Your task to perform on an android device: Open Youtube and go to "Your channel" Image 0: 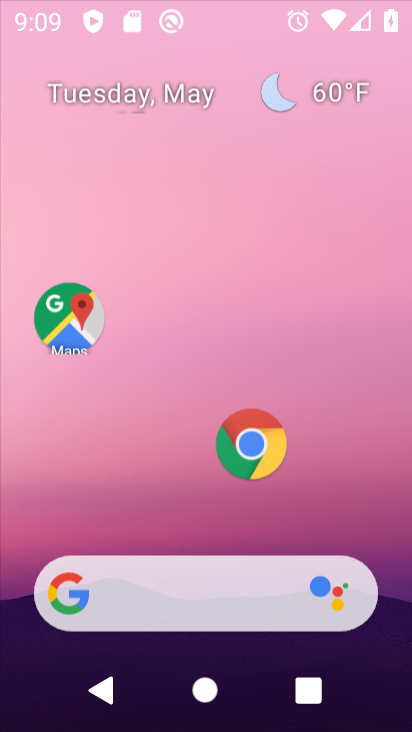
Step 0: click (247, 453)
Your task to perform on an android device: Open Youtube and go to "Your channel" Image 1: 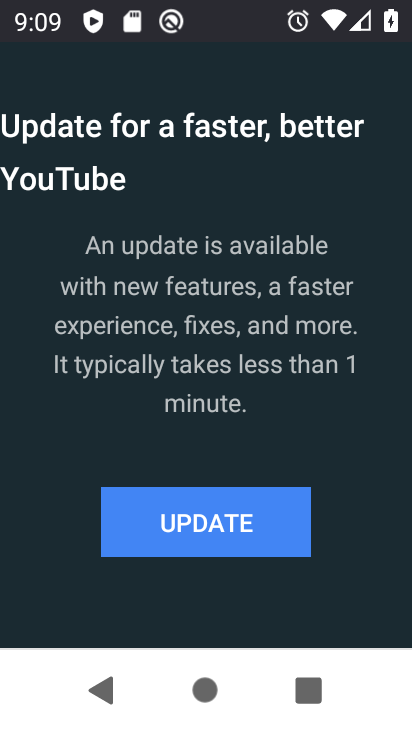
Step 1: press back button
Your task to perform on an android device: Open Youtube and go to "Your channel" Image 2: 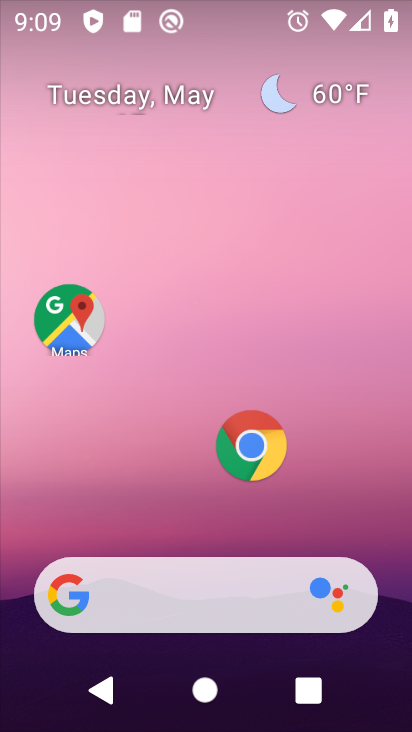
Step 2: drag from (155, 525) to (157, 182)
Your task to perform on an android device: Open Youtube and go to "Your channel" Image 3: 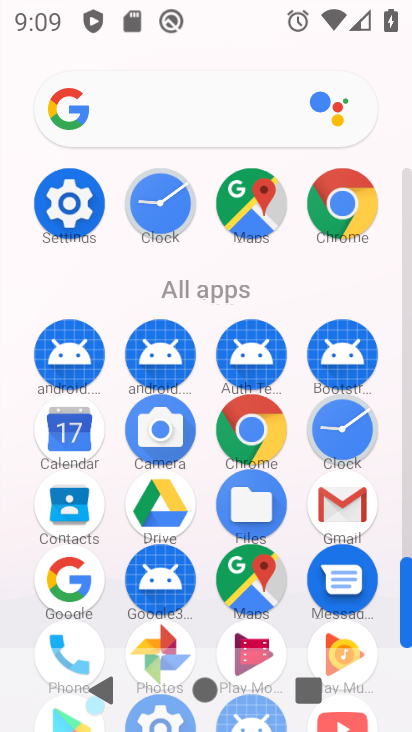
Step 3: drag from (281, 665) to (274, 463)
Your task to perform on an android device: Open Youtube and go to "Your channel" Image 4: 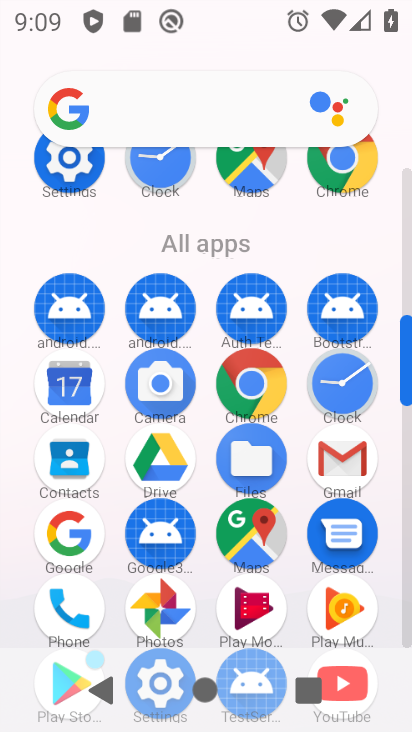
Step 4: drag from (297, 612) to (296, 416)
Your task to perform on an android device: Open Youtube and go to "Your channel" Image 5: 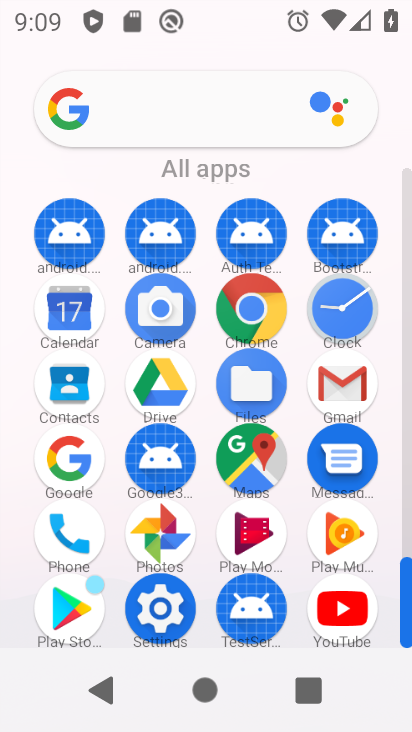
Step 5: click (353, 617)
Your task to perform on an android device: Open Youtube and go to "Your channel" Image 6: 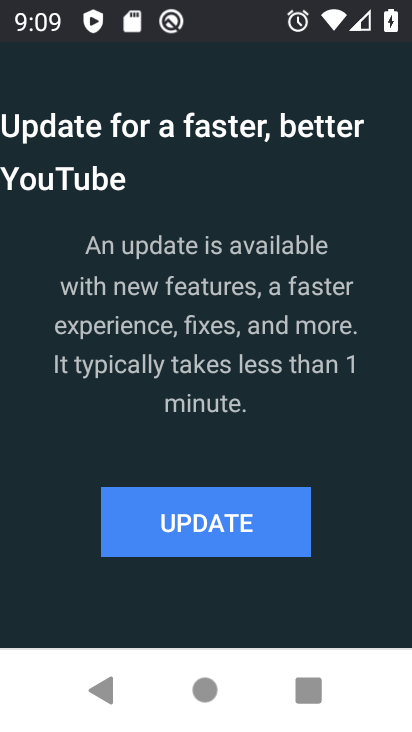
Step 6: click (201, 544)
Your task to perform on an android device: Open Youtube and go to "Your channel" Image 7: 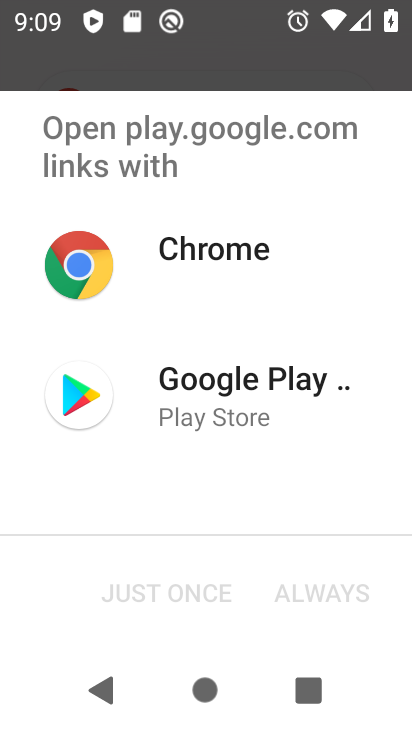
Step 7: click (222, 423)
Your task to perform on an android device: Open Youtube and go to "Your channel" Image 8: 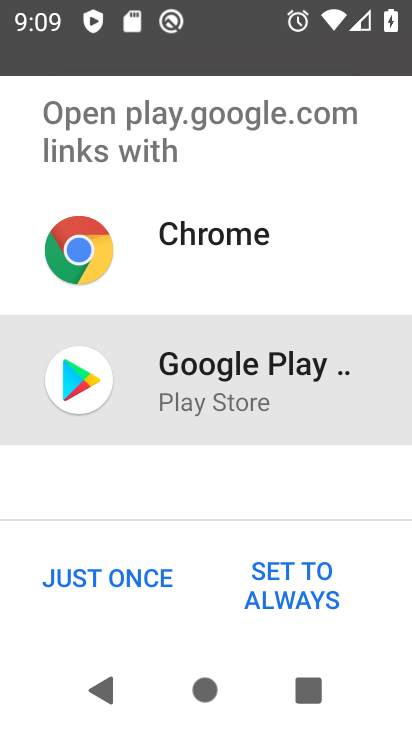
Step 8: click (305, 588)
Your task to perform on an android device: Open Youtube and go to "Your channel" Image 9: 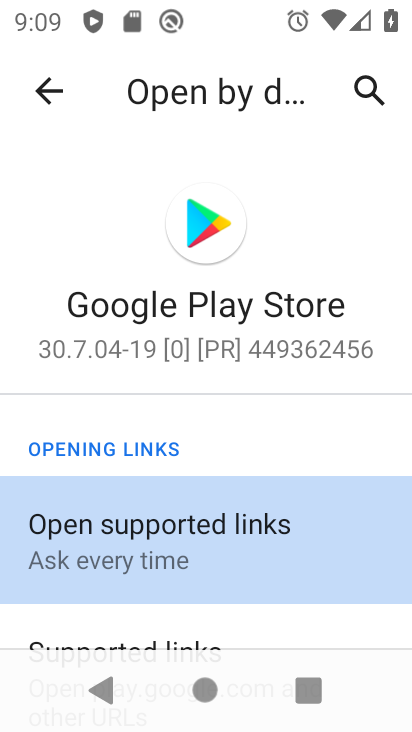
Step 9: click (237, 550)
Your task to perform on an android device: Open Youtube and go to "Your channel" Image 10: 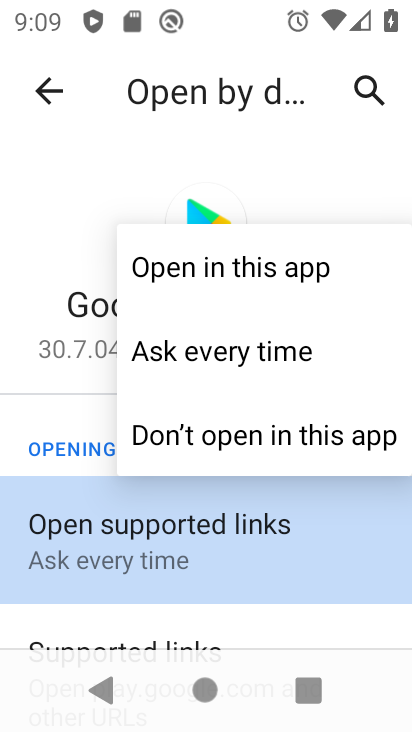
Step 10: click (228, 264)
Your task to perform on an android device: Open Youtube and go to "Your channel" Image 11: 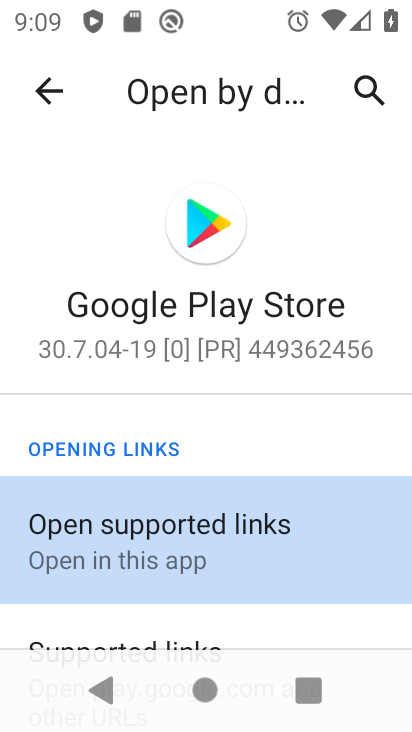
Step 11: click (53, 101)
Your task to perform on an android device: Open Youtube and go to "Your channel" Image 12: 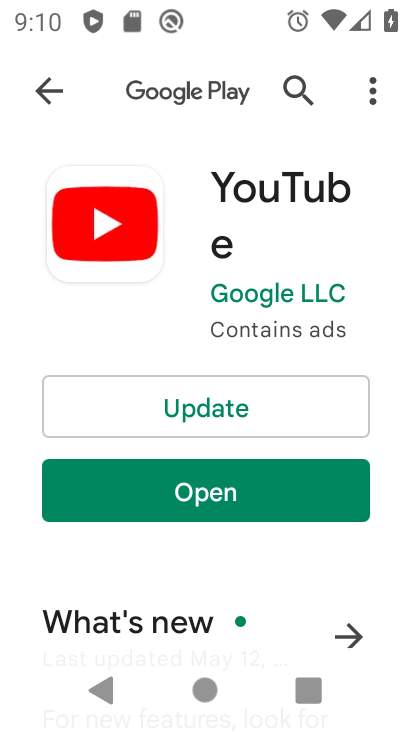
Step 12: click (212, 414)
Your task to perform on an android device: Open Youtube and go to "Your channel" Image 13: 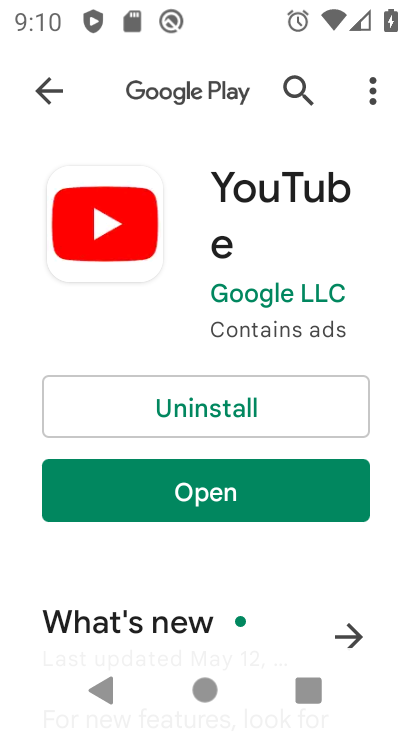
Step 13: click (230, 499)
Your task to perform on an android device: Open Youtube and go to "Your channel" Image 14: 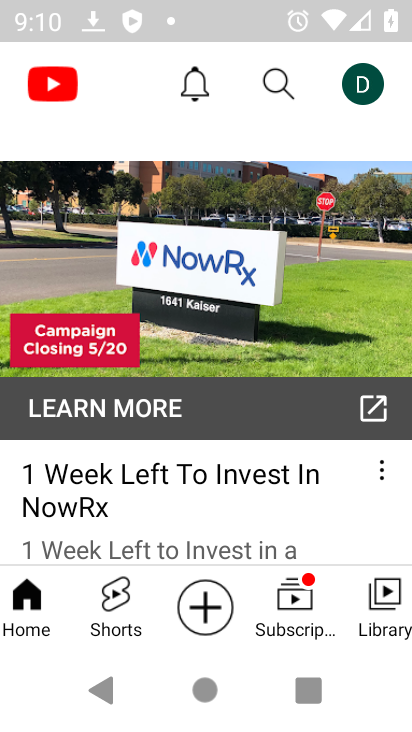
Step 14: drag from (238, 487) to (253, 314)
Your task to perform on an android device: Open Youtube and go to "Your channel" Image 15: 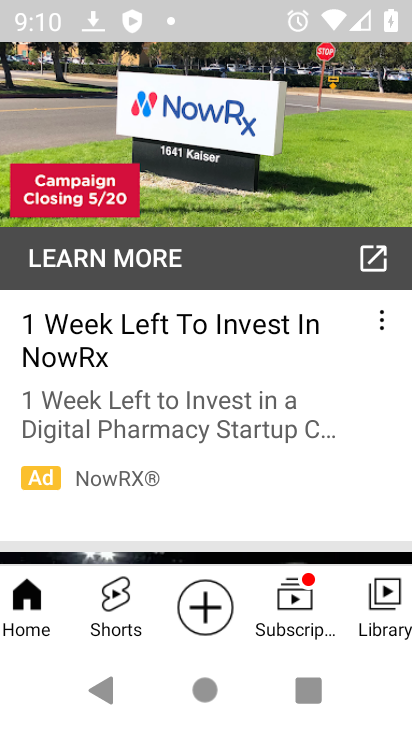
Step 15: drag from (314, 242) to (285, 410)
Your task to perform on an android device: Open Youtube and go to "Your channel" Image 16: 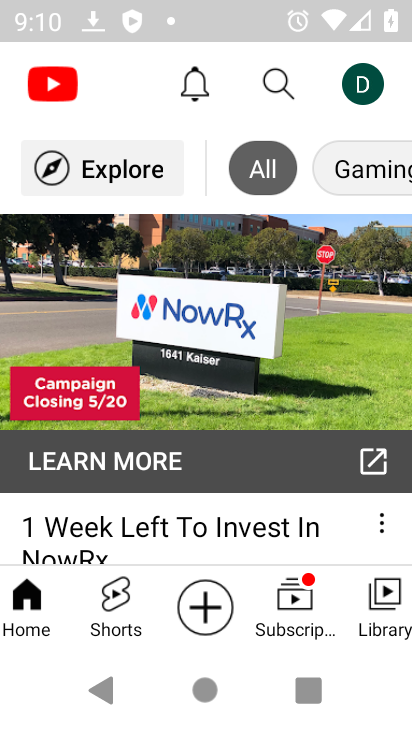
Step 16: click (353, 92)
Your task to perform on an android device: Open Youtube and go to "Your channel" Image 17: 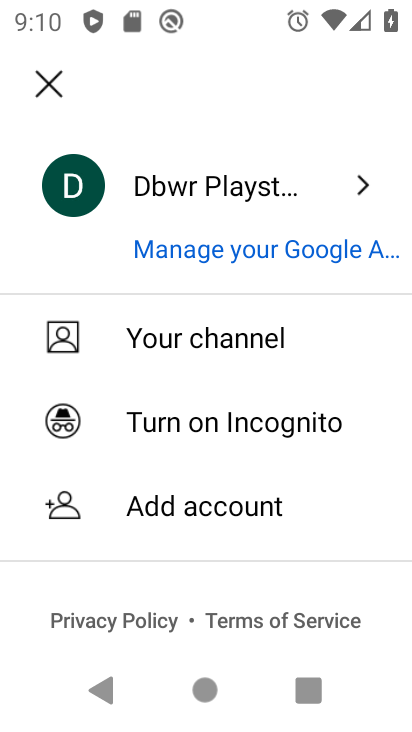
Step 17: click (223, 339)
Your task to perform on an android device: Open Youtube and go to "Your channel" Image 18: 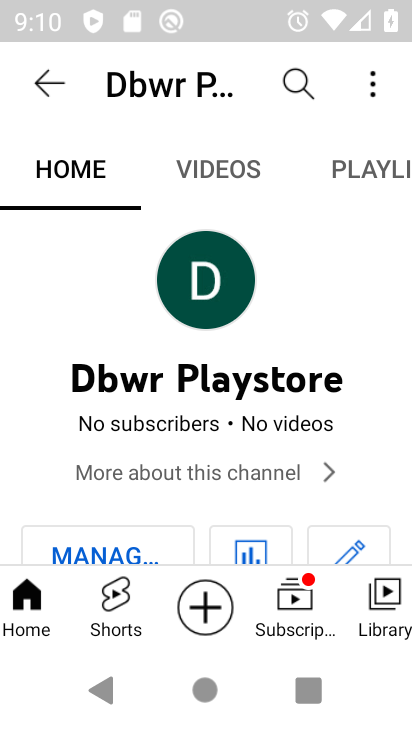
Step 18: task complete